Your task to perform on an android device: turn on location history Image 0: 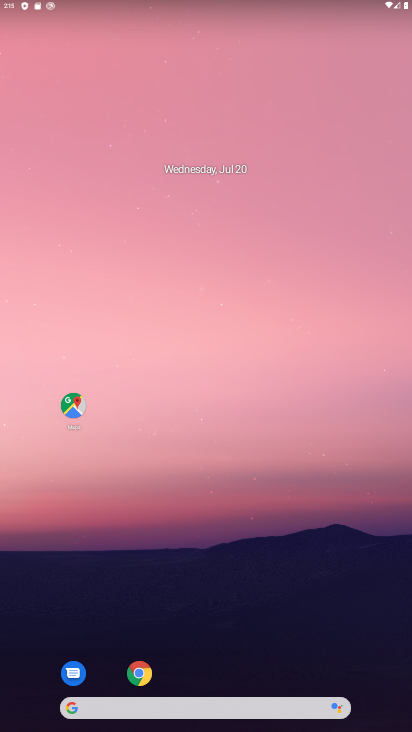
Step 0: drag from (274, 351) to (345, 1)
Your task to perform on an android device: turn on location history Image 1: 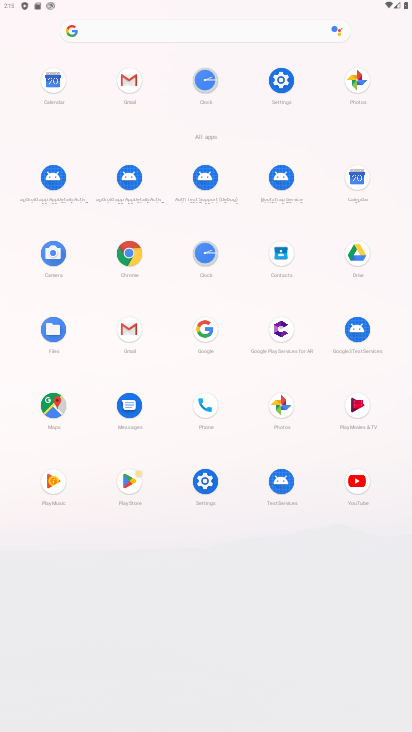
Step 1: click (282, 75)
Your task to perform on an android device: turn on location history Image 2: 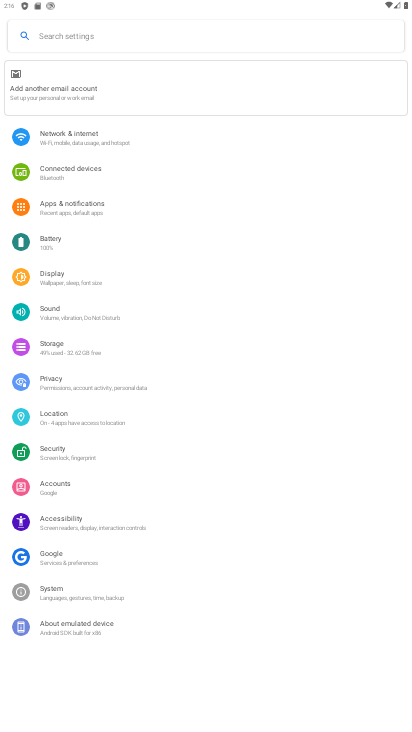
Step 2: click (75, 413)
Your task to perform on an android device: turn on location history Image 3: 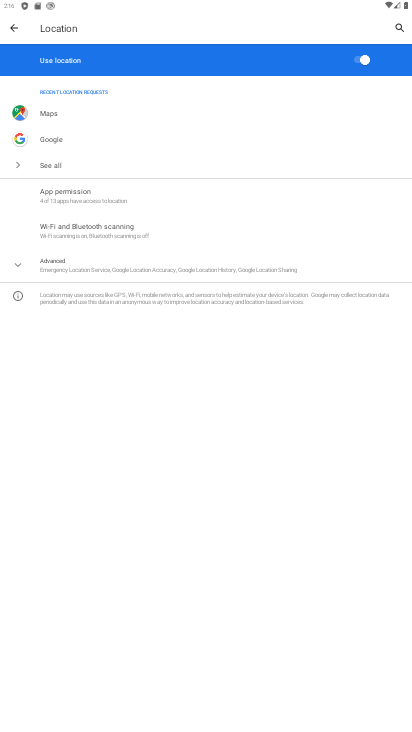
Step 3: click (174, 260)
Your task to perform on an android device: turn on location history Image 4: 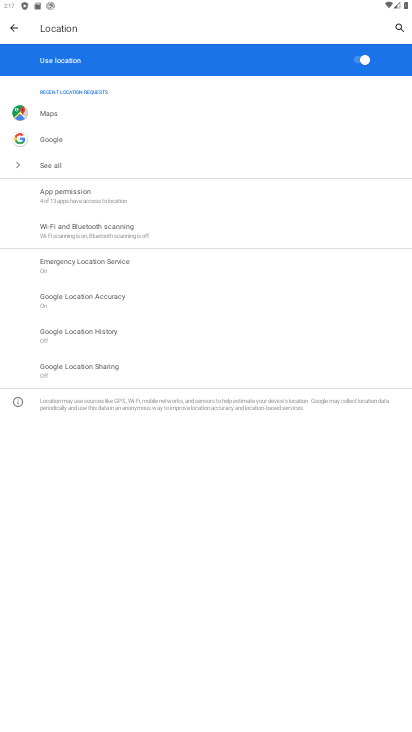
Step 4: click (98, 337)
Your task to perform on an android device: turn on location history Image 5: 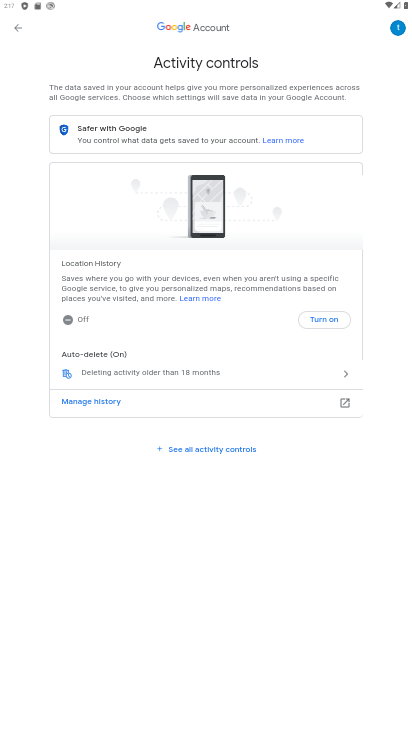
Step 5: click (336, 318)
Your task to perform on an android device: turn on location history Image 6: 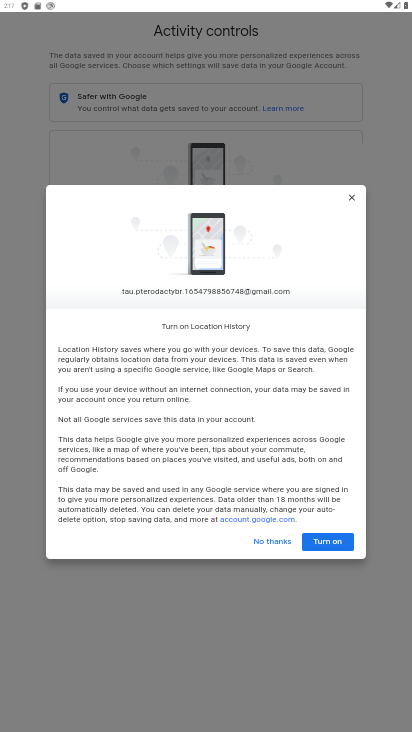
Step 6: click (337, 543)
Your task to perform on an android device: turn on location history Image 7: 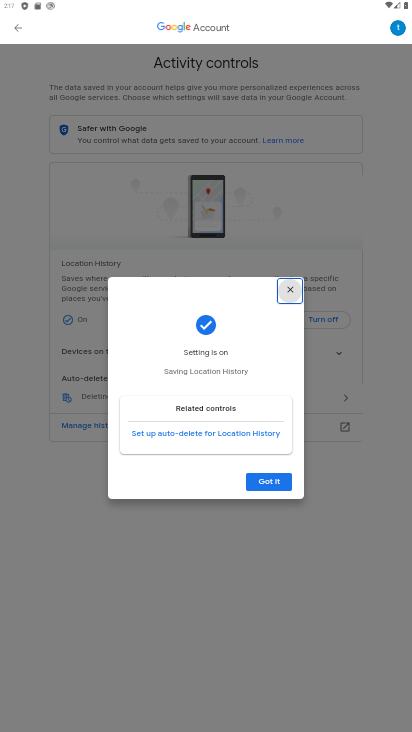
Step 7: click (278, 486)
Your task to perform on an android device: turn on location history Image 8: 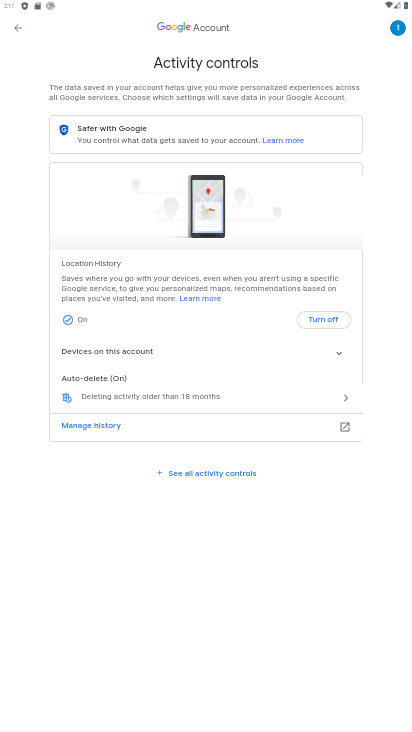
Step 8: task complete